Your task to perform on an android device: Open Google Image 0: 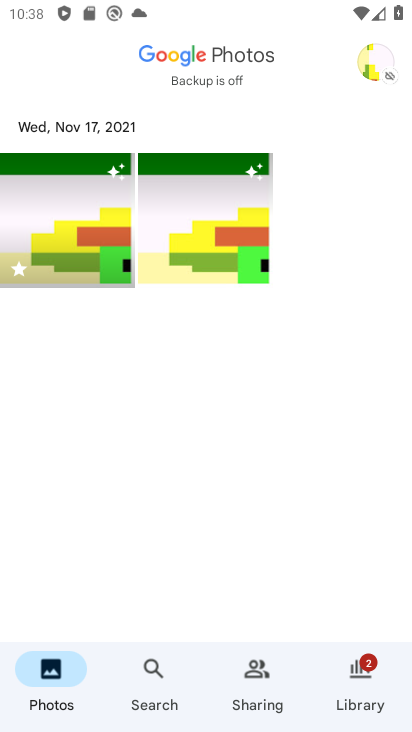
Step 0: press home button
Your task to perform on an android device: Open Google Image 1: 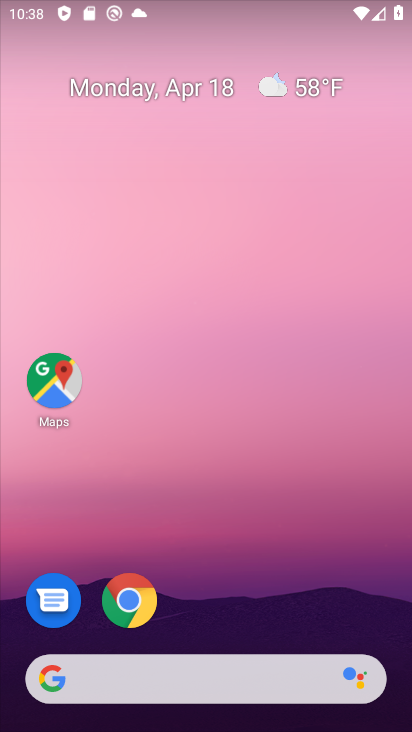
Step 1: click (171, 665)
Your task to perform on an android device: Open Google Image 2: 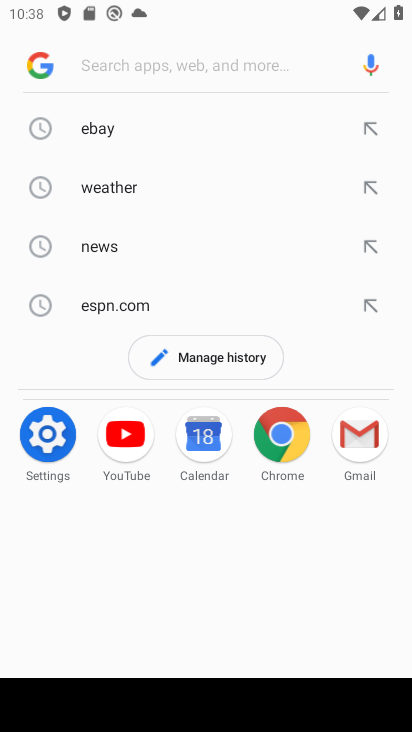
Step 2: task complete